Your task to perform on an android device: Open network settings Image 0: 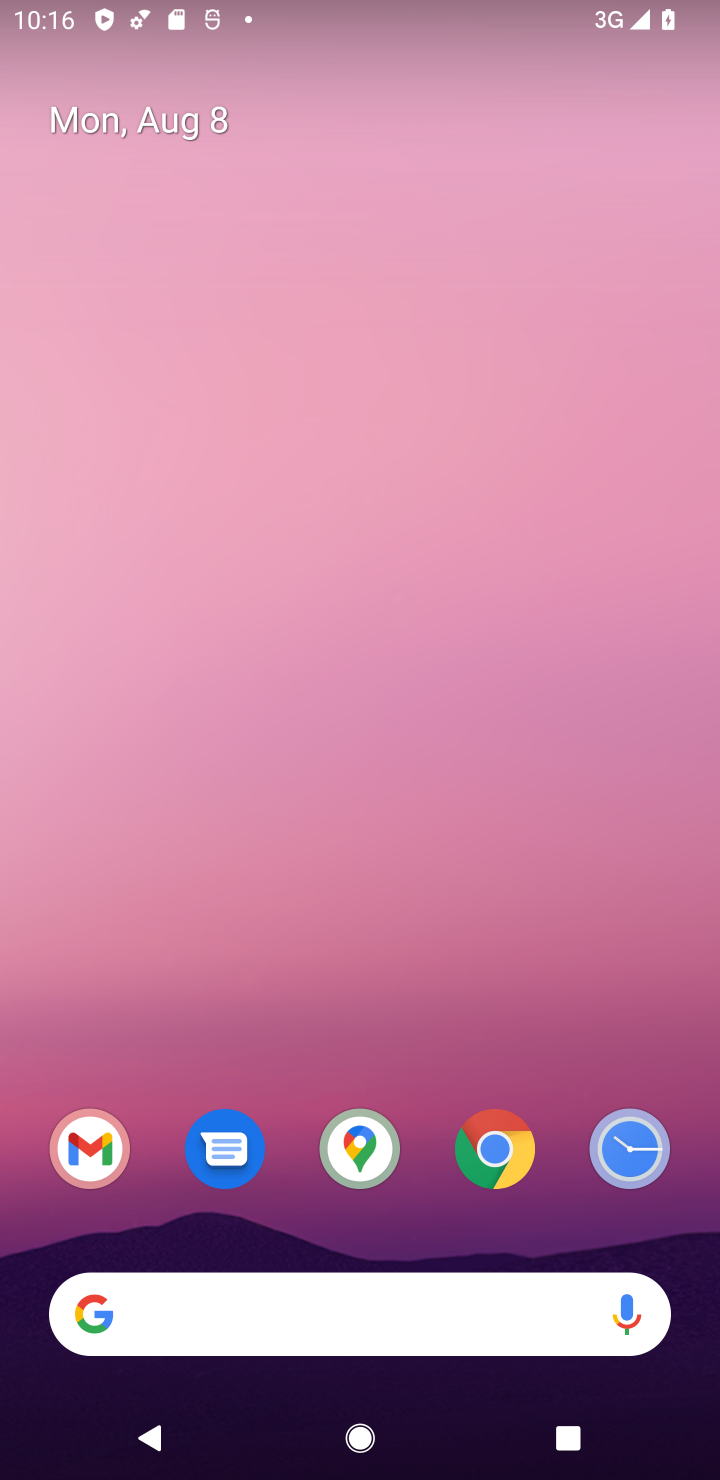
Step 0: drag from (335, 1248) to (335, 521)
Your task to perform on an android device: Open network settings Image 1: 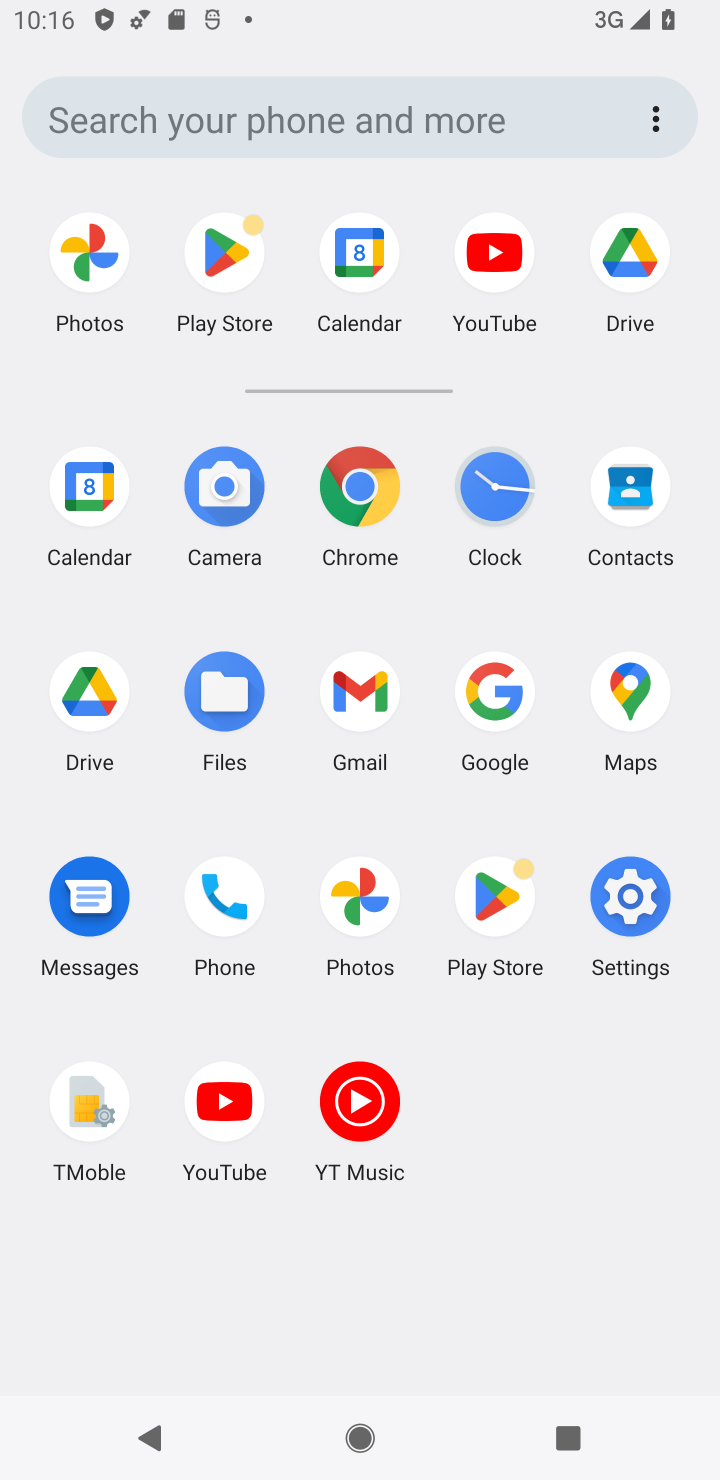
Step 1: click (608, 894)
Your task to perform on an android device: Open network settings Image 2: 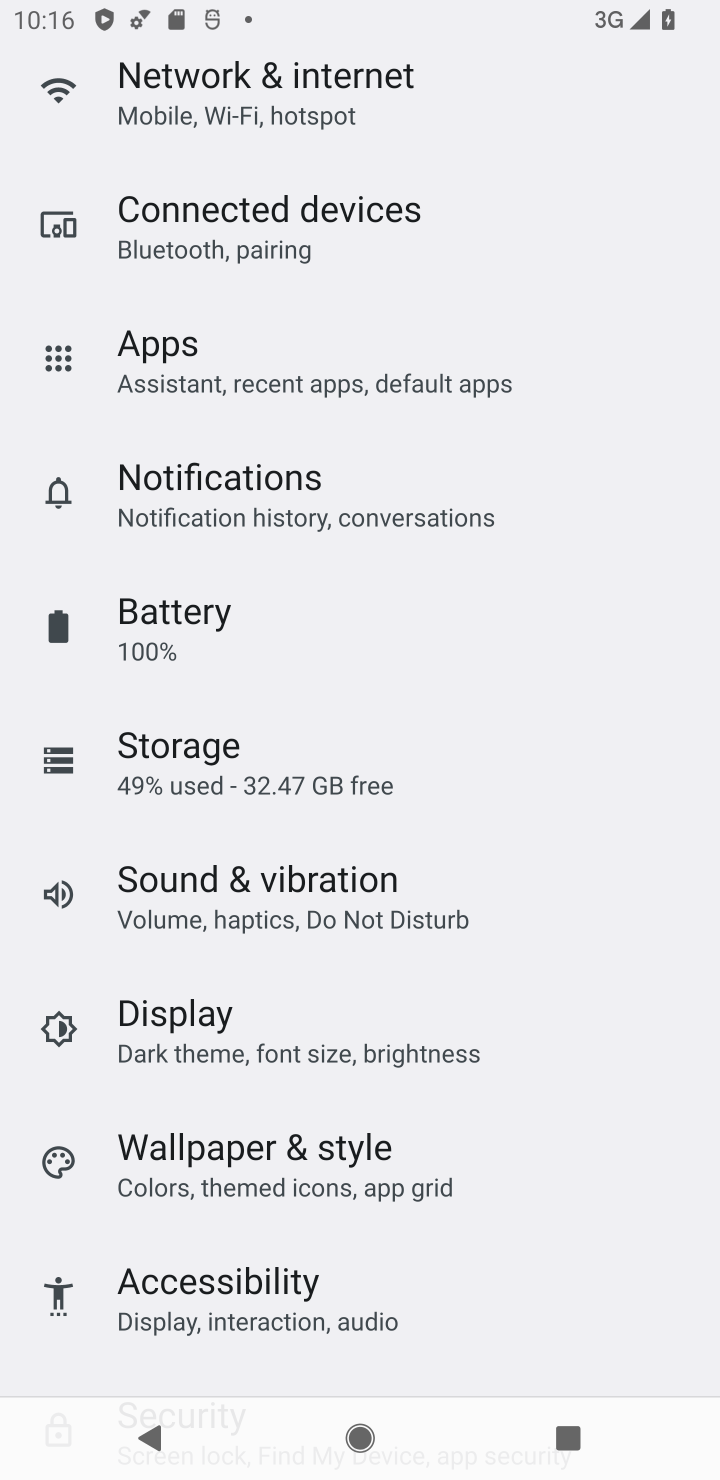
Step 2: click (240, 99)
Your task to perform on an android device: Open network settings Image 3: 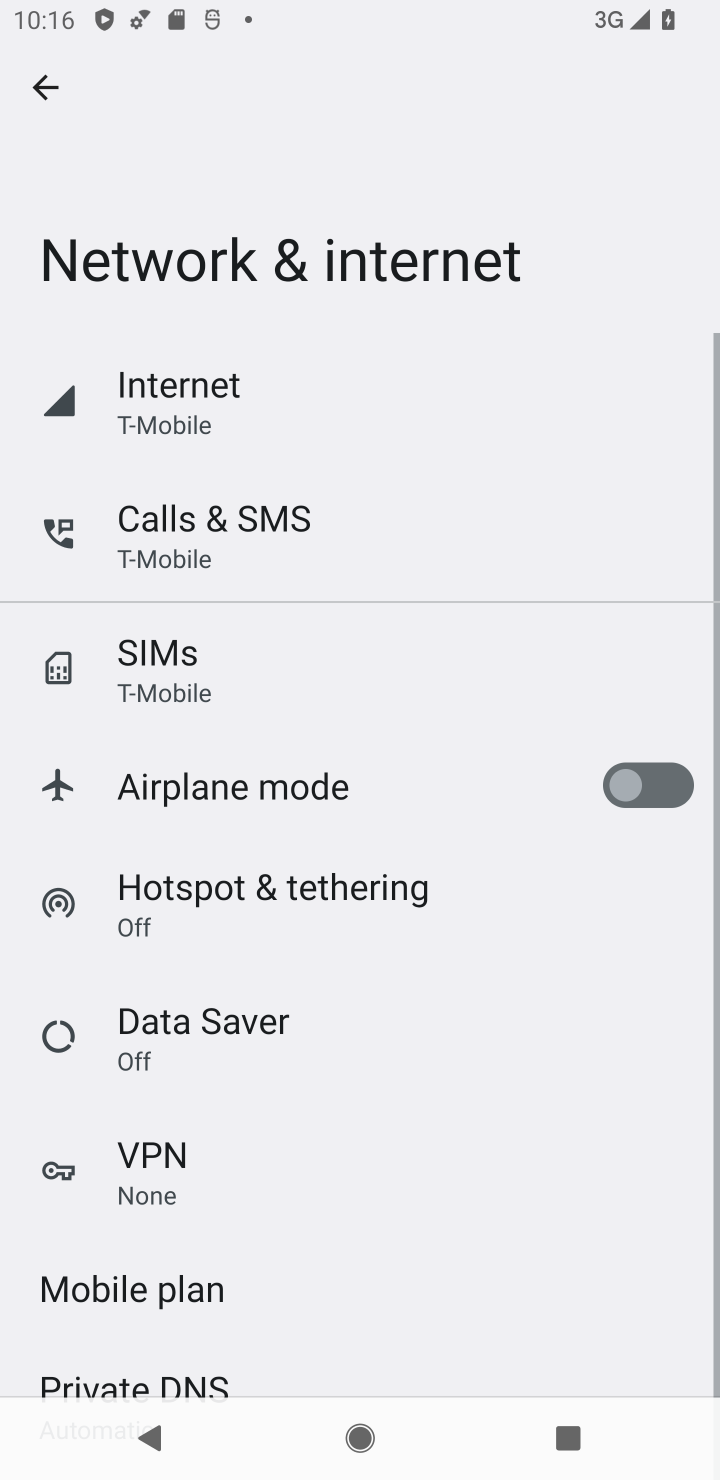
Step 3: task complete